Your task to perform on an android device: turn off translation in the chrome app Image 0: 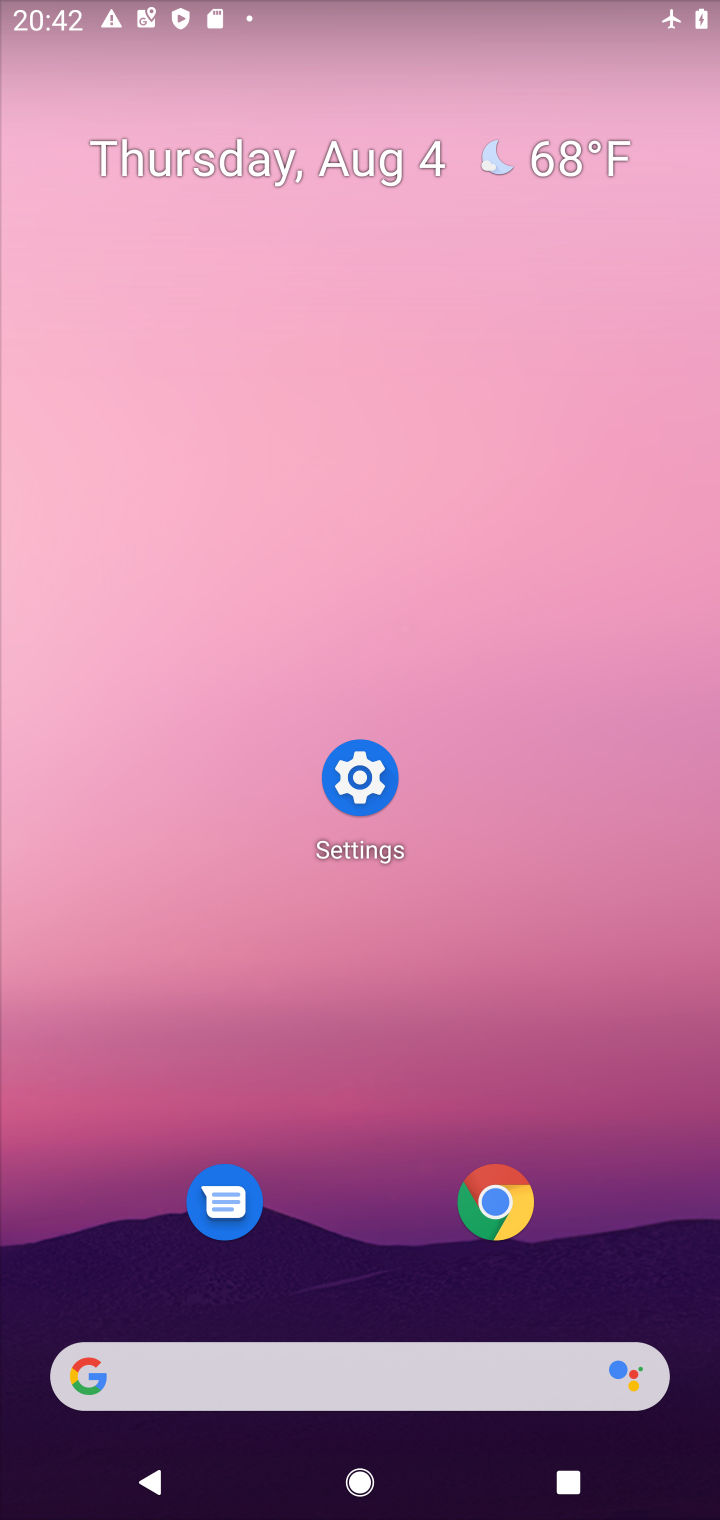
Step 0: click (515, 1199)
Your task to perform on an android device: turn off translation in the chrome app Image 1: 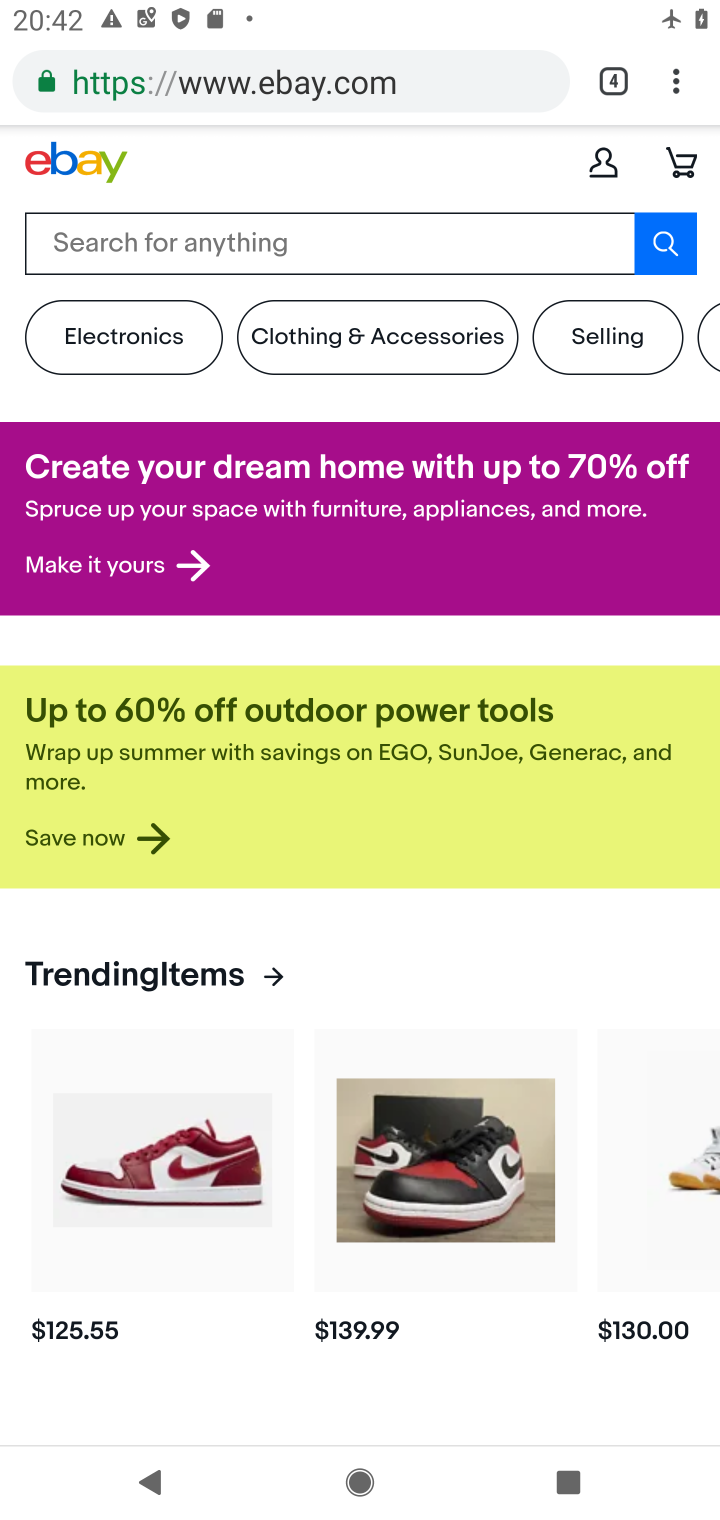
Step 1: click (677, 84)
Your task to perform on an android device: turn off translation in the chrome app Image 2: 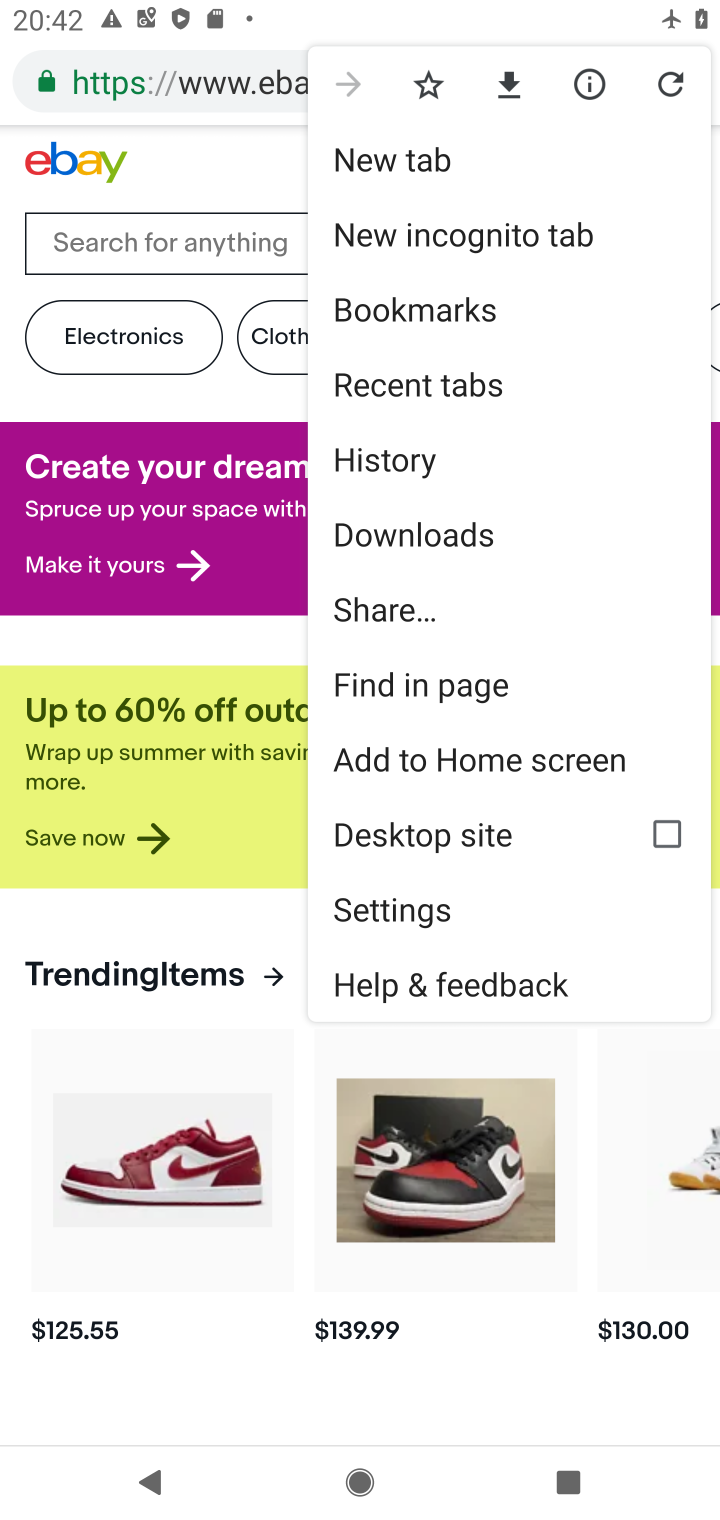
Step 2: click (408, 916)
Your task to perform on an android device: turn off translation in the chrome app Image 3: 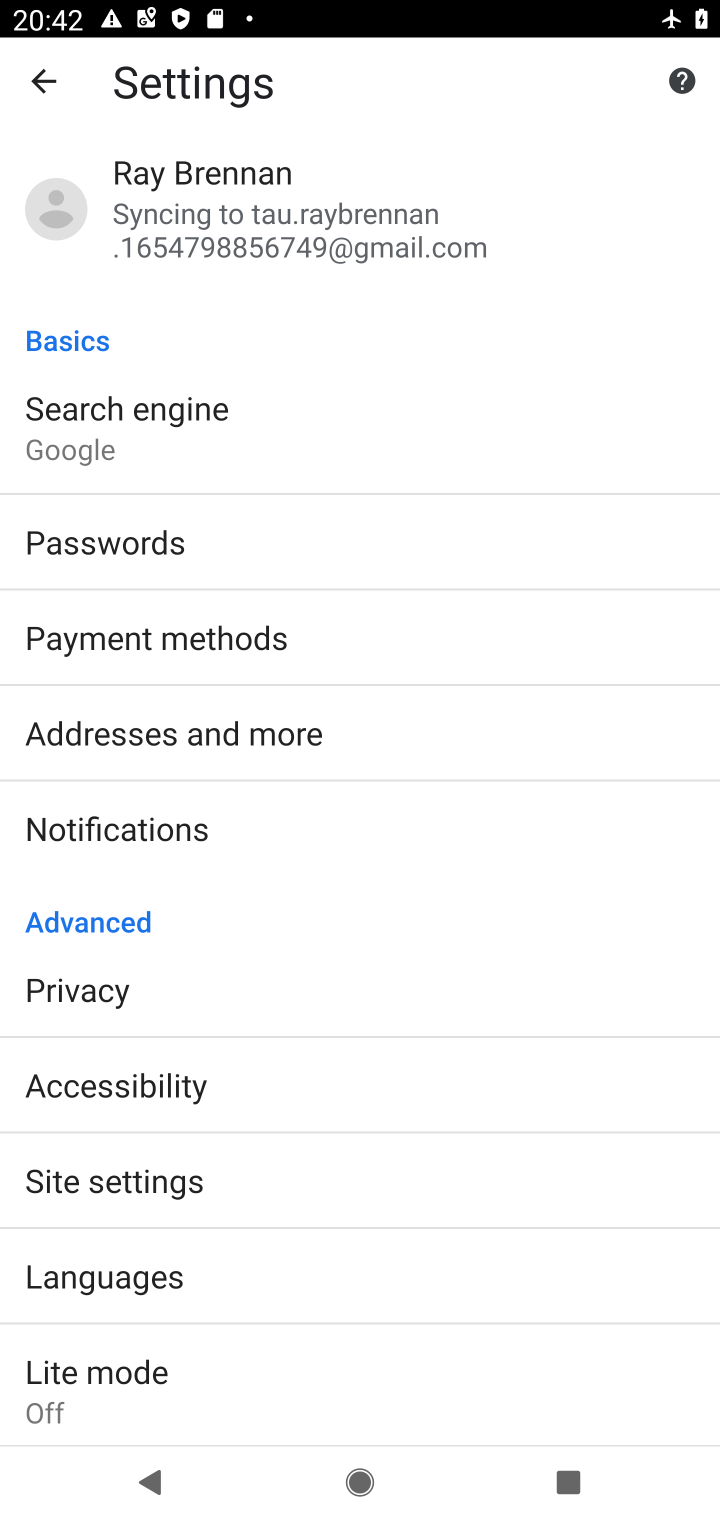
Step 3: click (121, 1278)
Your task to perform on an android device: turn off translation in the chrome app Image 4: 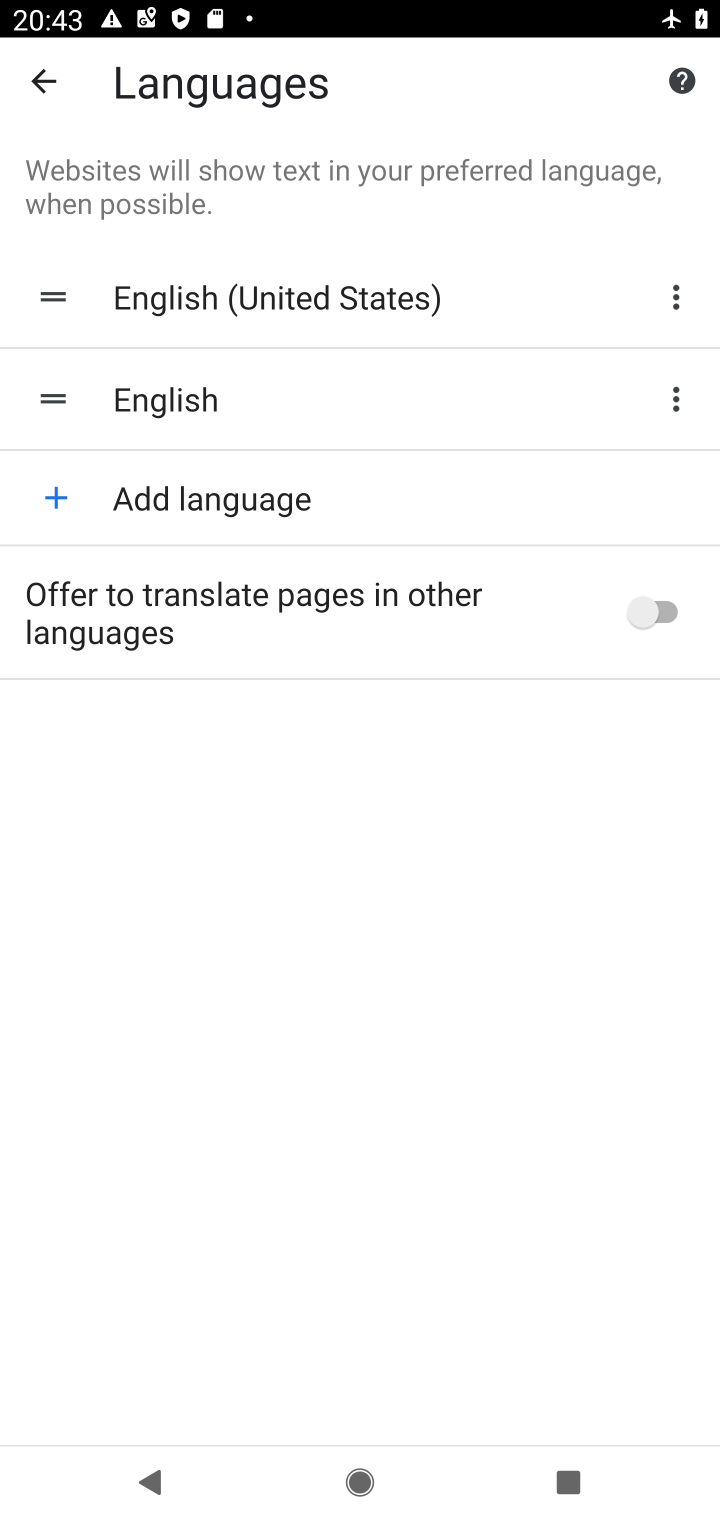
Step 4: task complete